Your task to perform on an android device: Go to location settings Image 0: 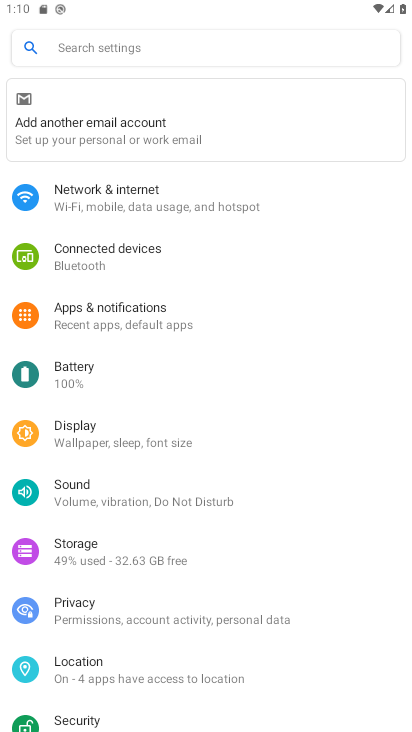
Step 0: click (101, 683)
Your task to perform on an android device: Go to location settings Image 1: 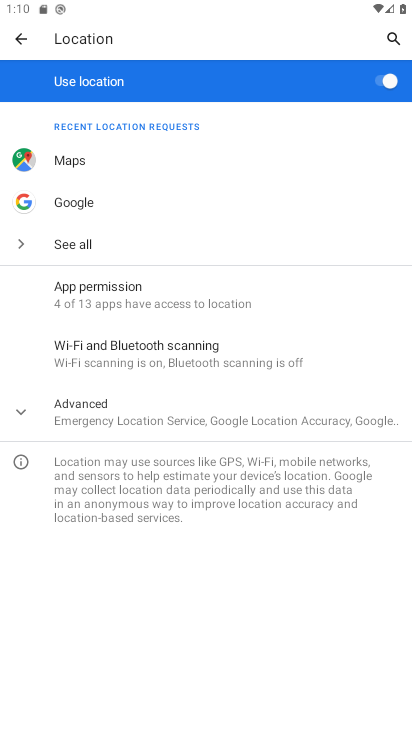
Step 1: task complete